Your task to perform on an android device: Open location settings Image 0: 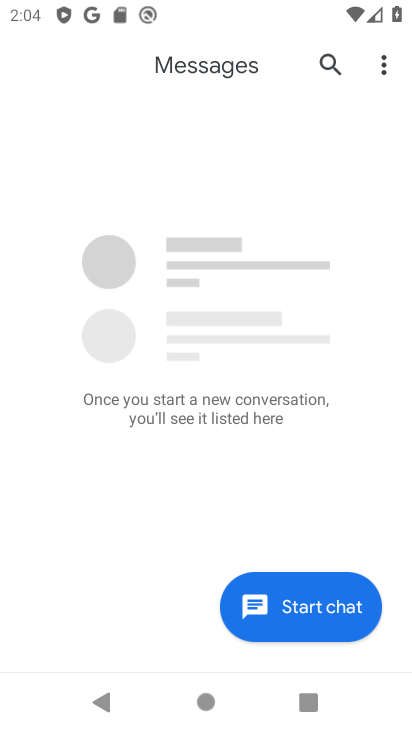
Step 0: press home button
Your task to perform on an android device: Open location settings Image 1: 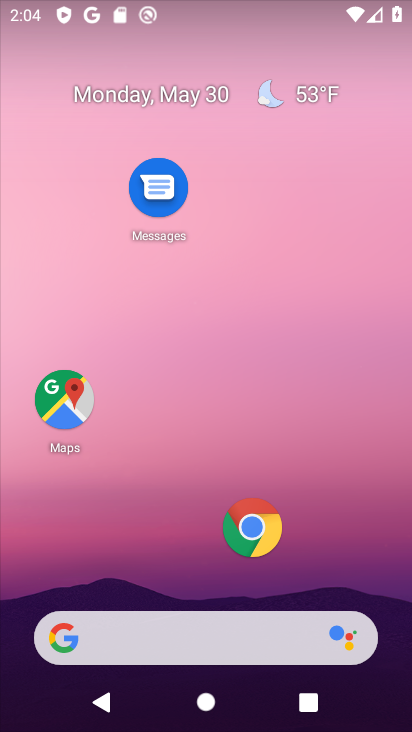
Step 1: drag from (188, 558) to (310, 99)
Your task to perform on an android device: Open location settings Image 2: 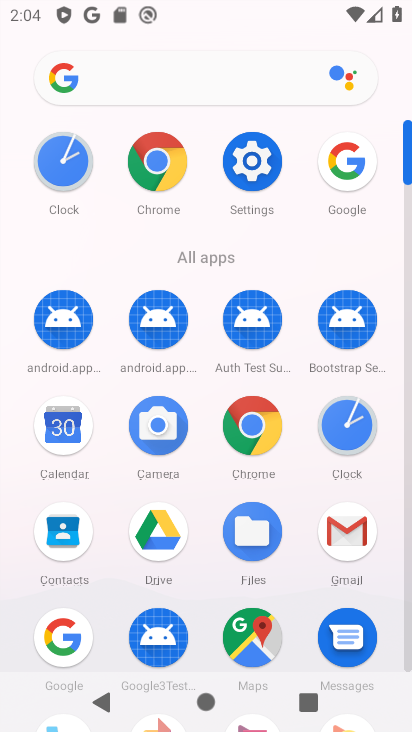
Step 2: drag from (215, 265) to (217, 4)
Your task to perform on an android device: Open location settings Image 3: 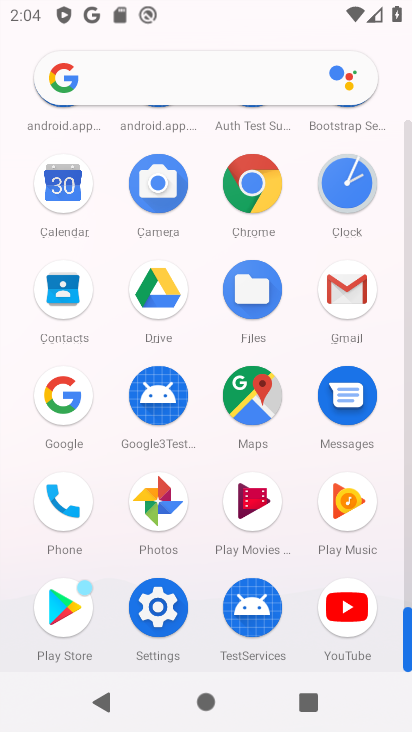
Step 3: click (175, 616)
Your task to perform on an android device: Open location settings Image 4: 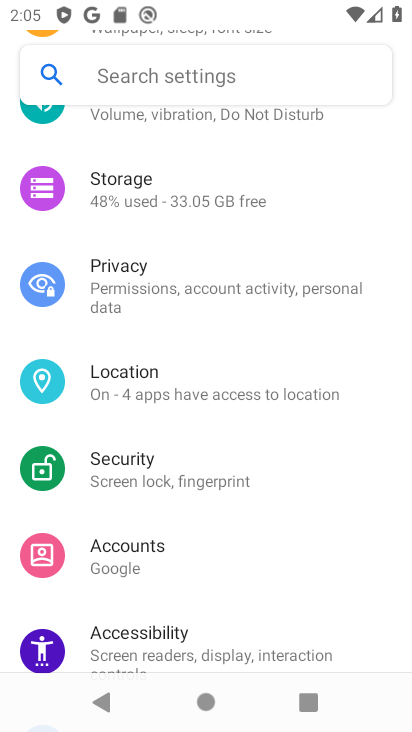
Step 4: click (171, 382)
Your task to perform on an android device: Open location settings Image 5: 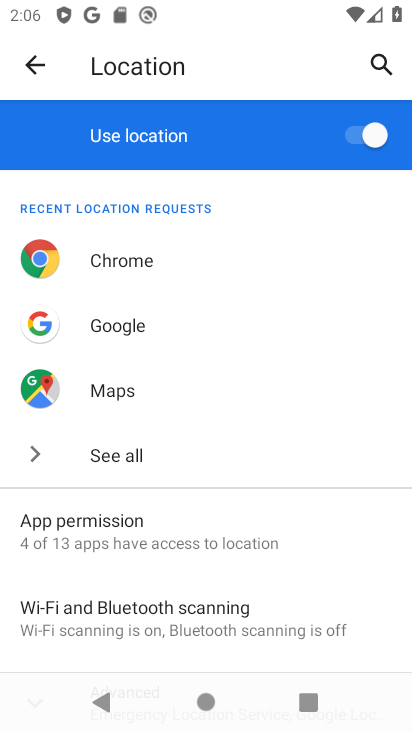
Step 5: task complete